Your task to perform on an android device: turn notification dots on Image 0: 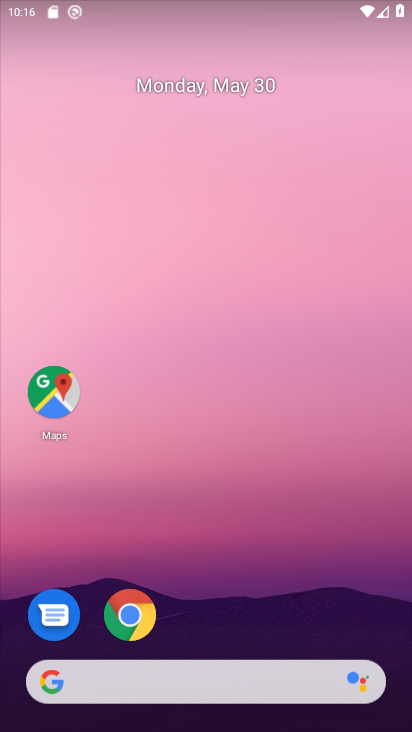
Step 0: drag from (254, 562) to (170, 20)
Your task to perform on an android device: turn notification dots on Image 1: 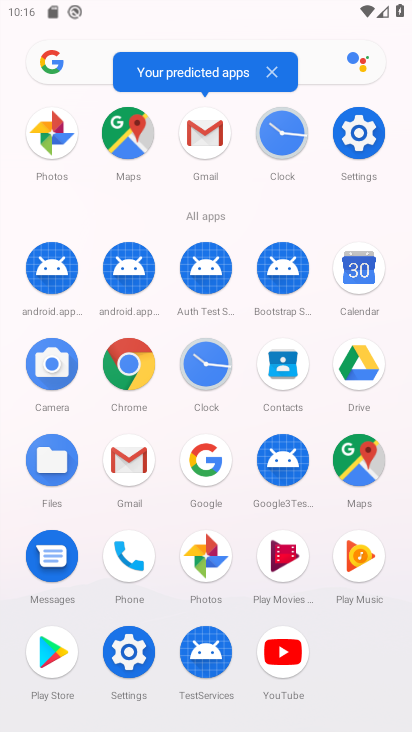
Step 1: drag from (5, 291) to (7, 176)
Your task to perform on an android device: turn notification dots on Image 2: 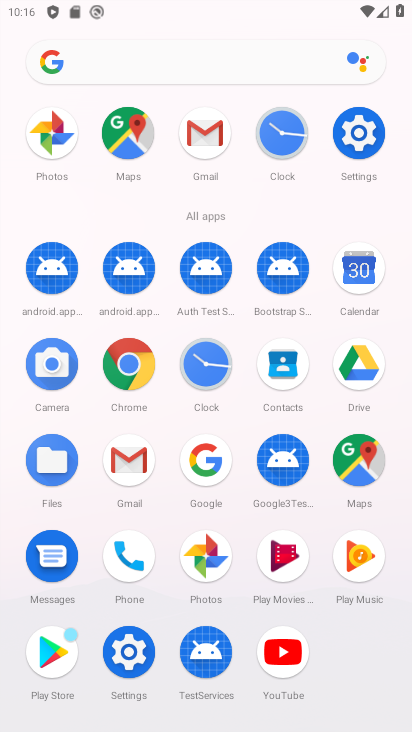
Step 2: click (354, 130)
Your task to perform on an android device: turn notification dots on Image 3: 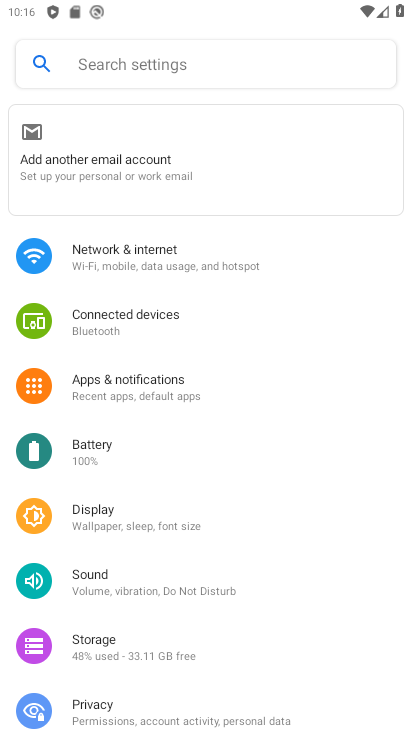
Step 3: click (124, 387)
Your task to perform on an android device: turn notification dots on Image 4: 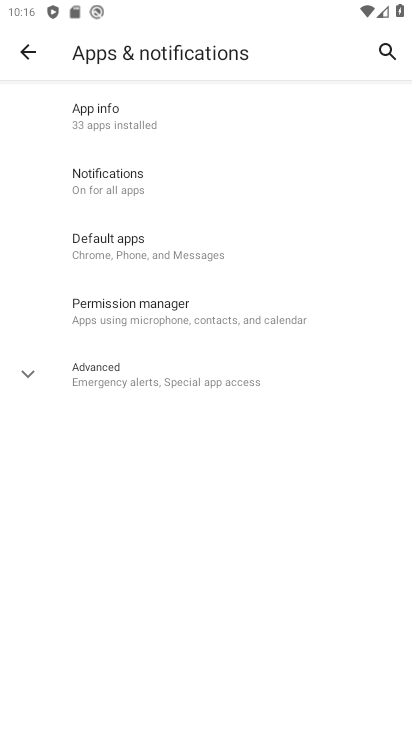
Step 4: click (108, 180)
Your task to perform on an android device: turn notification dots on Image 5: 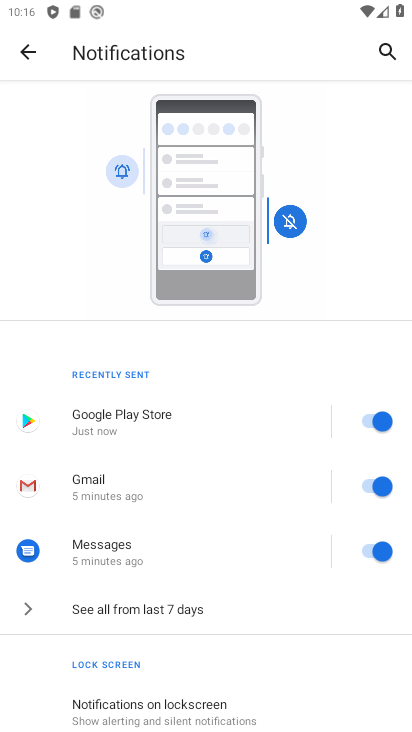
Step 5: drag from (192, 551) to (203, 152)
Your task to perform on an android device: turn notification dots on Image 6: 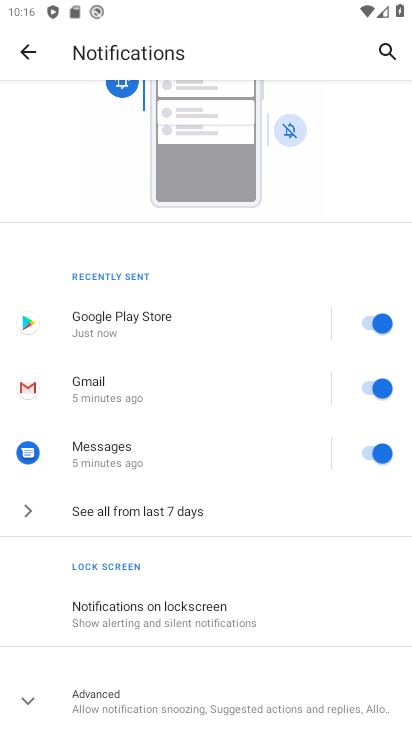
Step 6: click (55, 697)
Your task to perform on an android device: turn notification dots on Image 7: 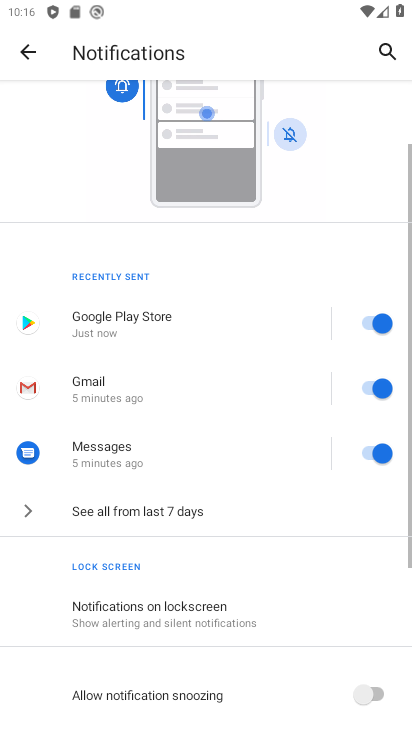
Step 7: click (180, 606)
Your task to perform on an android device: turn notification dots on Image 8: 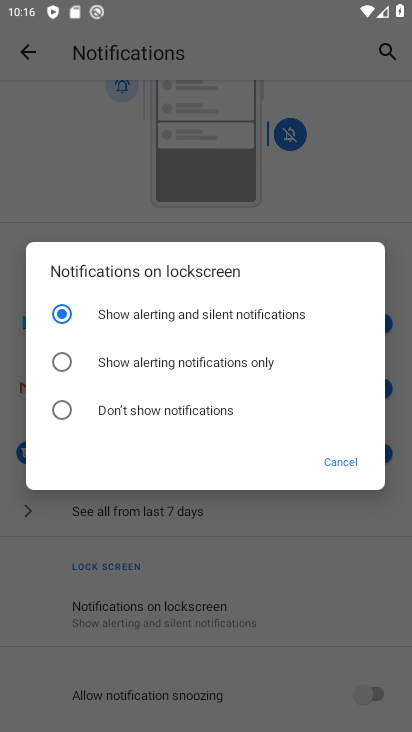
Step 8: click (266, 174)
Your task to perform on an android device: turn notification dots on Image 9: 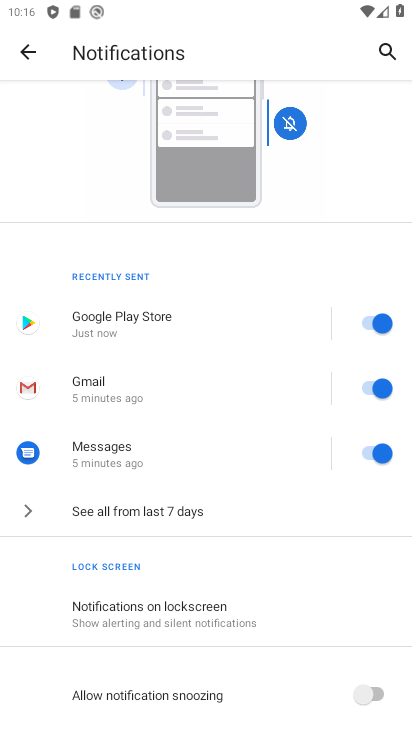
Step 9: task complete